Your task to perform on an android device: What is the recent news? Image 0: 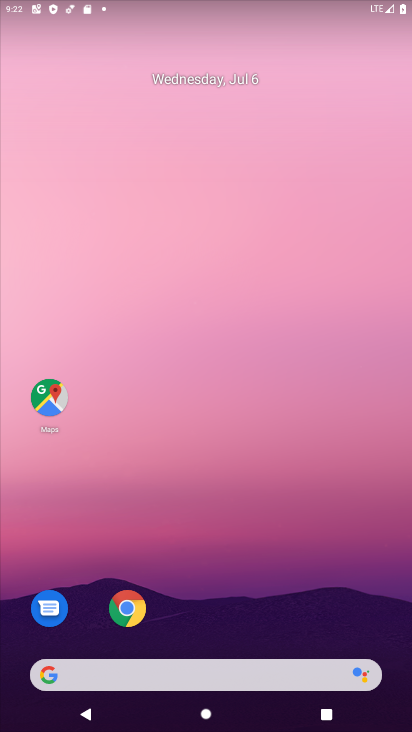
Step 0: drag from (6, 244) to (371, 293)
Your task to perform on an android device: What is the recent news? Image 1: 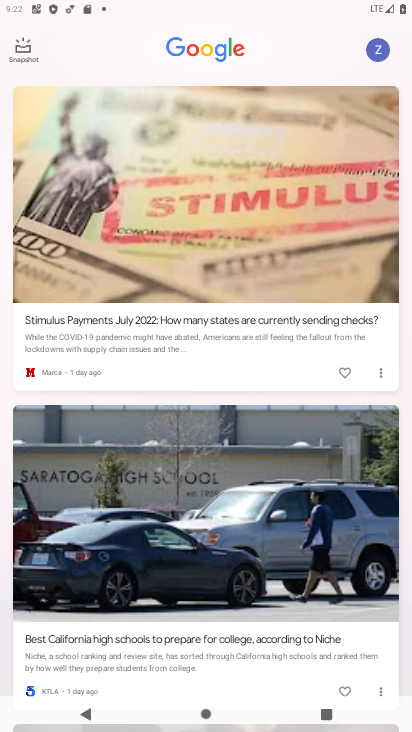
Step 1: task complete